Your task to perform on an android device: Go to settings Image 0: 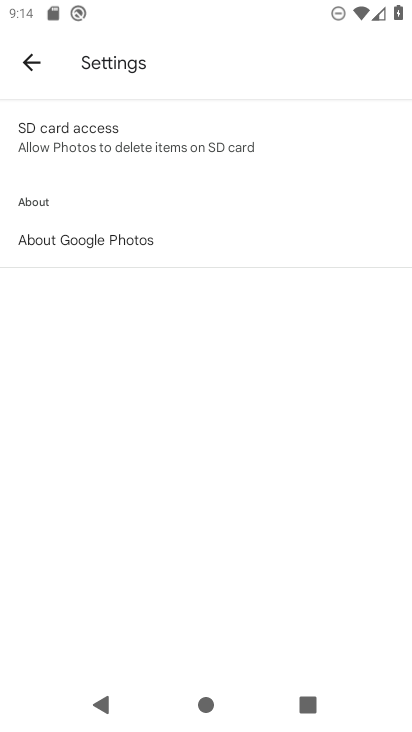
Step 0: press home button
Your task to perform on an android device: Go to settings Image 1: 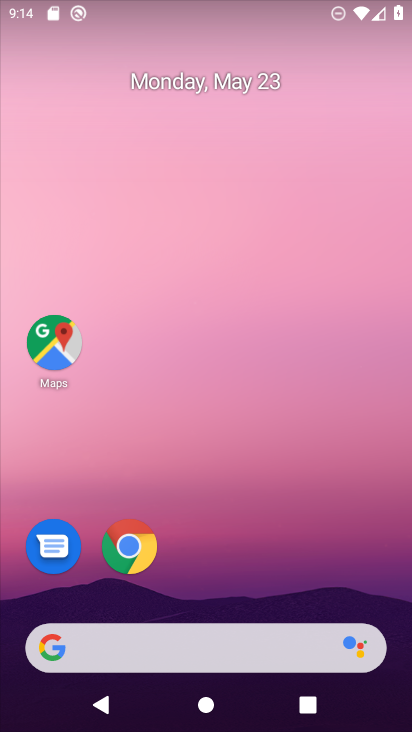
Step 1: drag from (183, 467) to (243, 147)
Your task to perform on an android device: Go to settings Image 2: 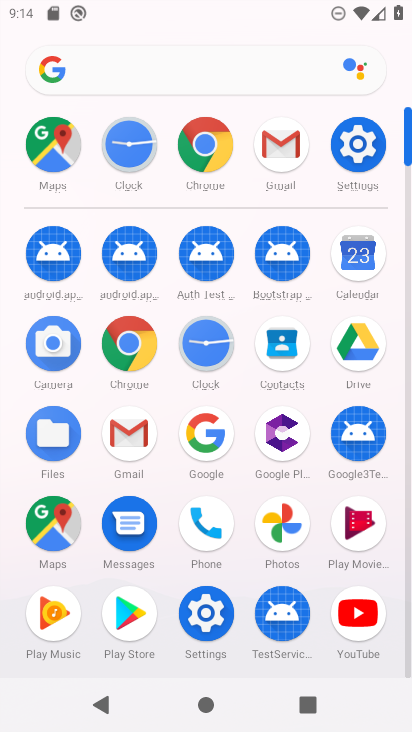
Step 2: click (377, 131)
Your task to perform on an android device: Go to settings Image 3: 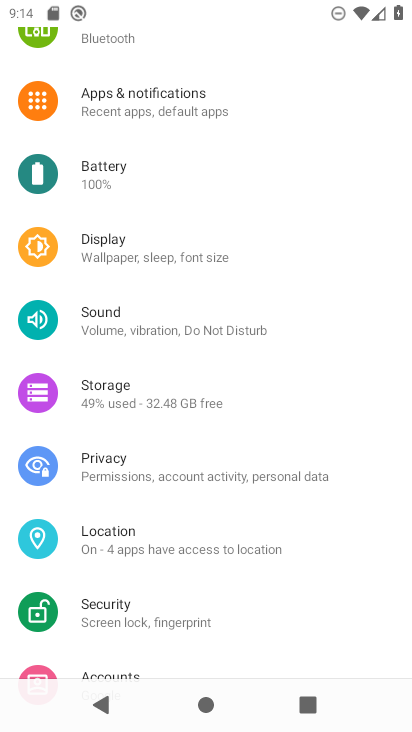
Step 3: task complete